Your task to perform on an android device: clear history in the chrome app Image 0: 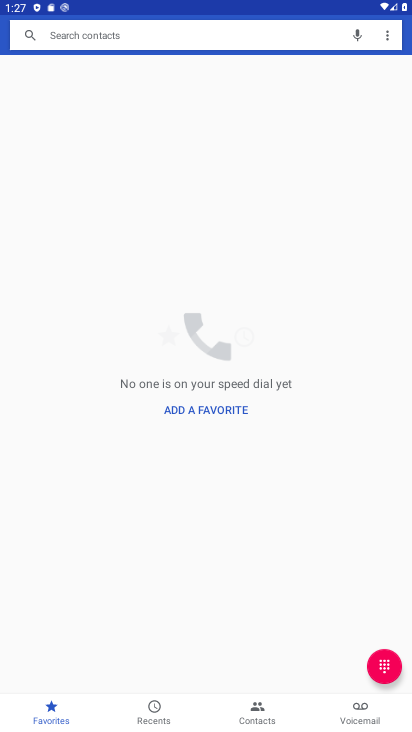
Step 0: press home button
Your task to perform on an android device: clear history in the chrome app Image 1: 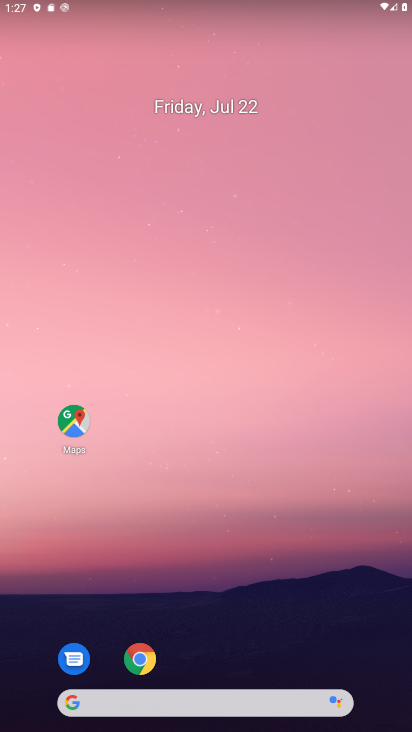
Step 1: click (148, 650)
Your task to perform on an android device: clear history in the chrome app Image 2: 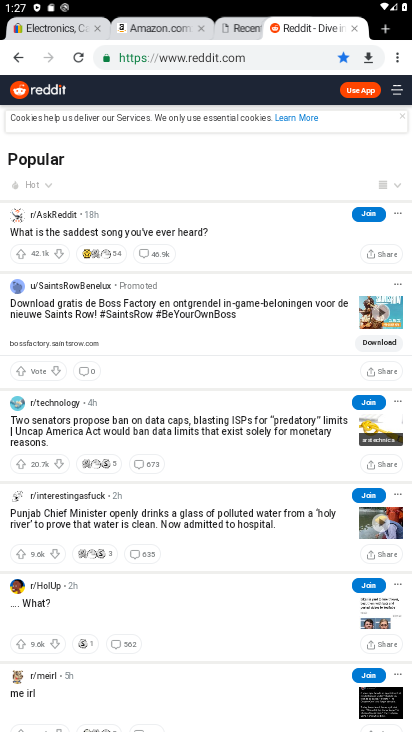
Step 2: click (398, 49)
Your task to perform on an android device: clear history in the chrome app Image 3: 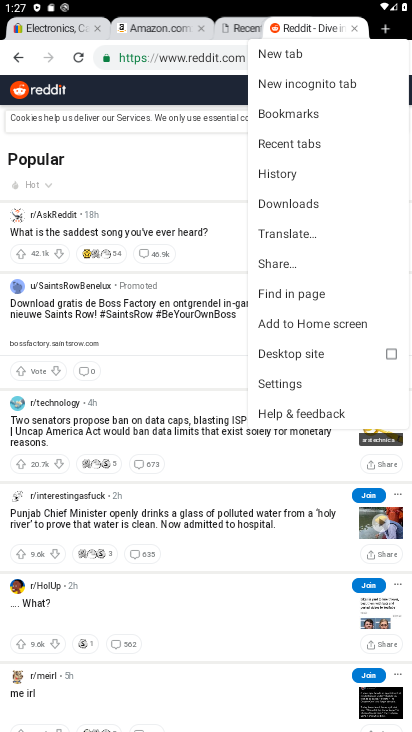
Step 3: click (281, 176)
Your task to perform on an android device: clear history in the chrome app Image 4: 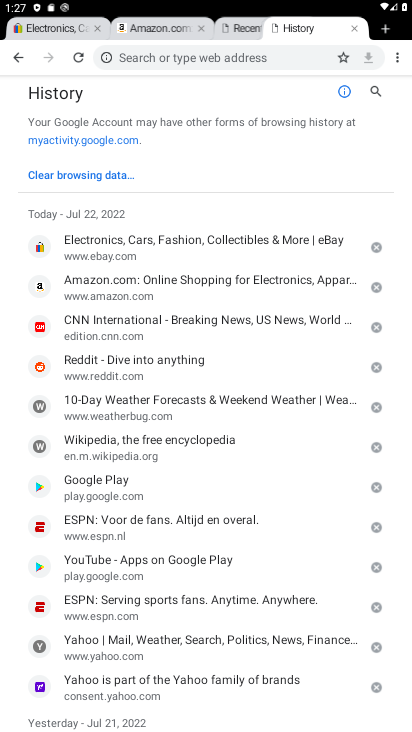
Step 4: click (93, 170)
Your task to perform on an android device: clear history in the chrome app Image 5: 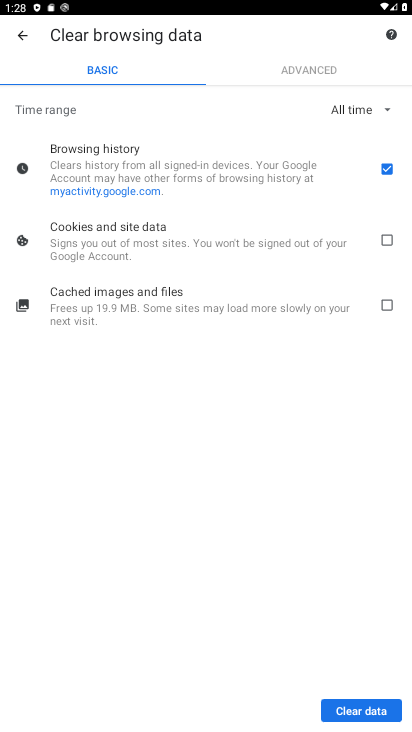
Step 5: click (353, 716)
Your task to perform on an android device: clear history in the chrome app Image 6: 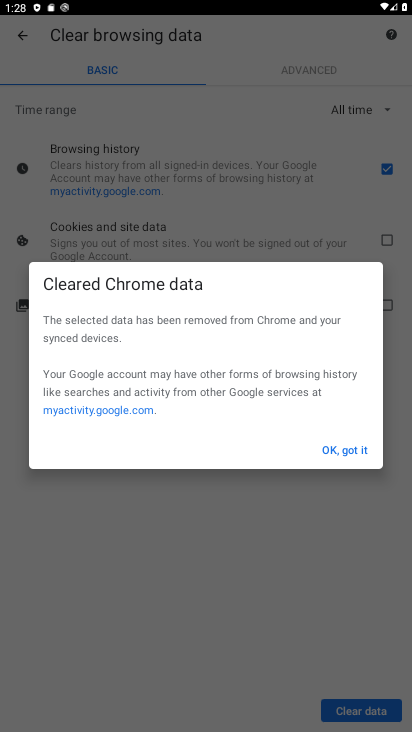
Step 6: task complete